Your task to perform on an android device: change timer sound Image 0: 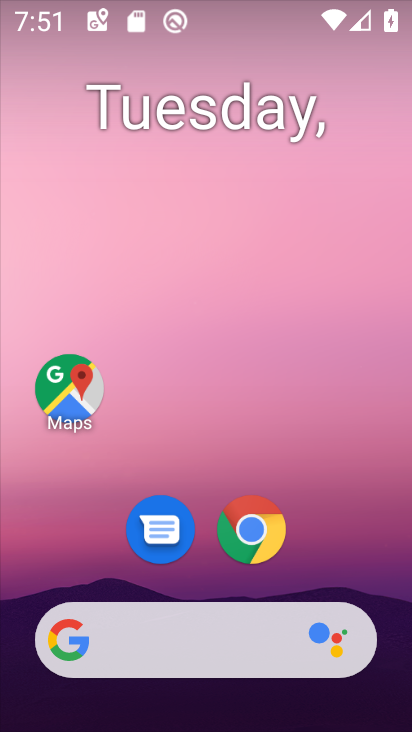
Step 0: drag from (107, 527) to (181, 101)
Your task to perform on an android device: change timer sound Image 1: 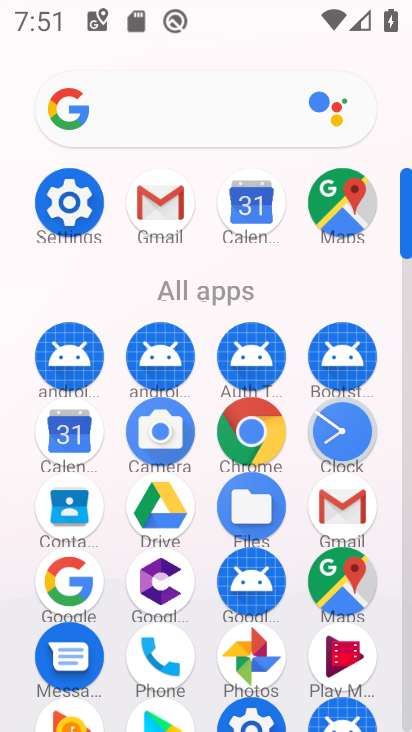
Step 1: click (333, 442)
Your task to perform on an android device: change timer sound Image 2: 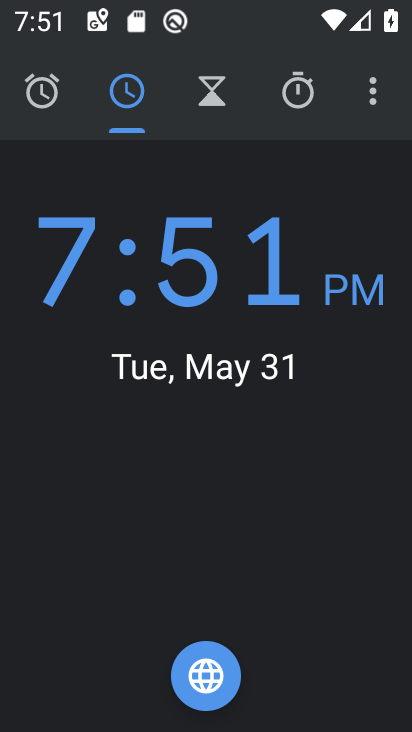
Step 2: click (374, 84)
Your task to perform on an android device: change timer sound Image 3: 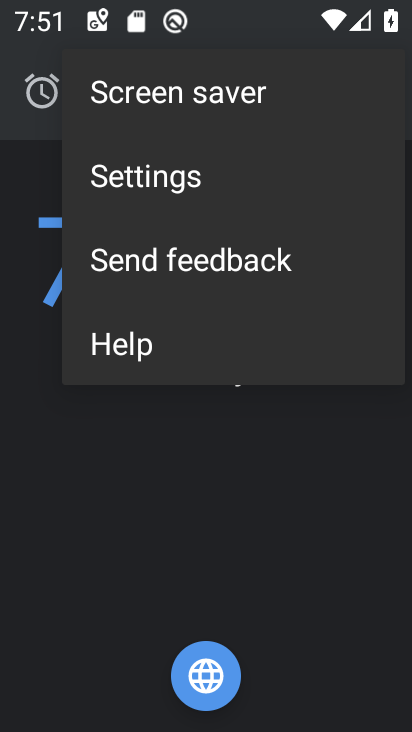
Step 3: click (181, 161)
Your task to perform on an android device: change timer sound Image 4: 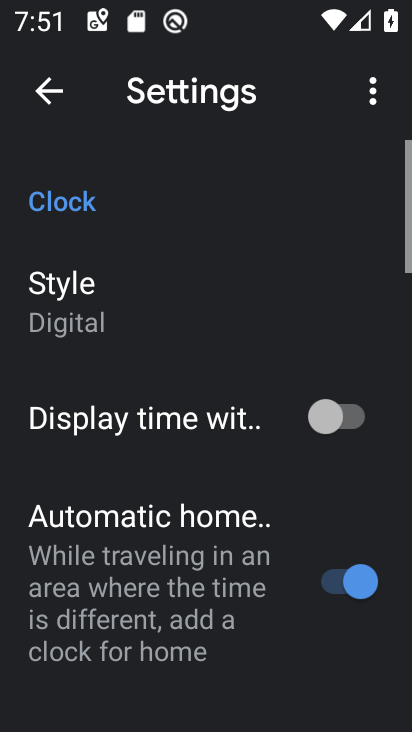
Step 4: drag from (162, 621) to (224, 25)
Your task to perform on an android device: change timer sound Image 5: 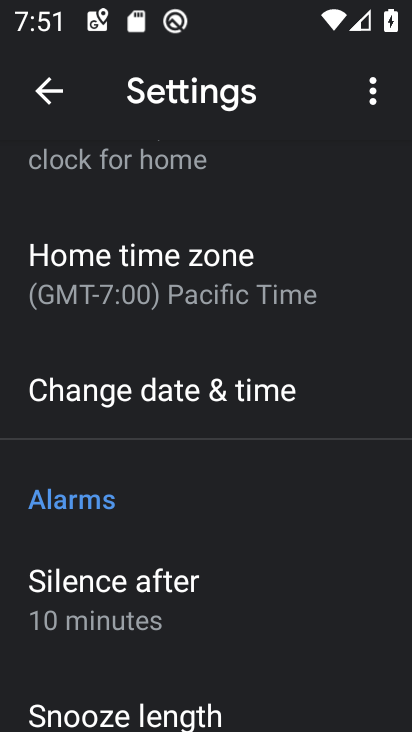
Step 5: drag from (200, 585) to (254, 76)
Your task to perform on an android device: change timer sound Image 6: 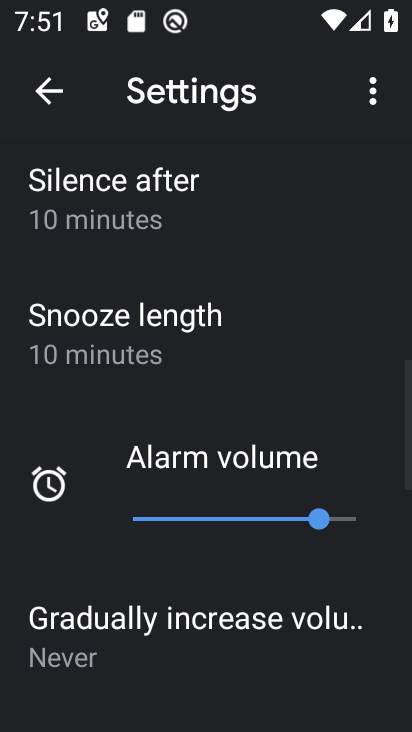
Step 6: drag from (224, 589) to (278, 48)
Your task to perform on an android device: change timer sound Image 7: 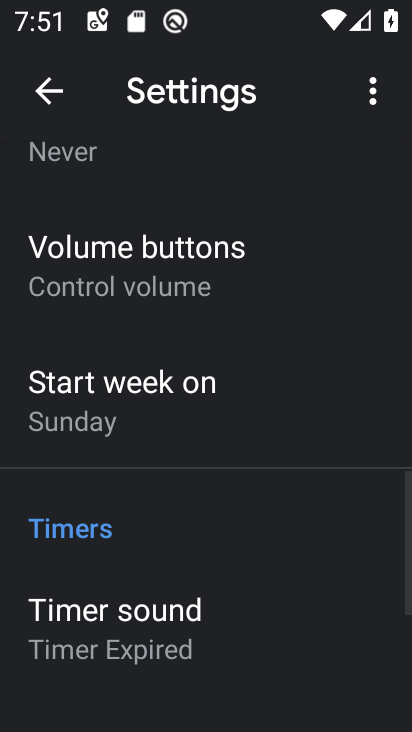
Step 7: click (140, 615)
Your task to perform on an android device: change timer sound Image 8: 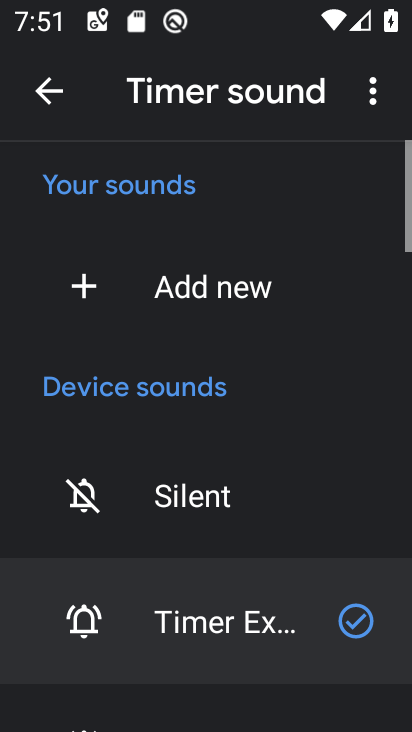
Step 8: drag from (165, 533) to (221, 117)
Your task to perform on an android device: change timer sound Image 9: 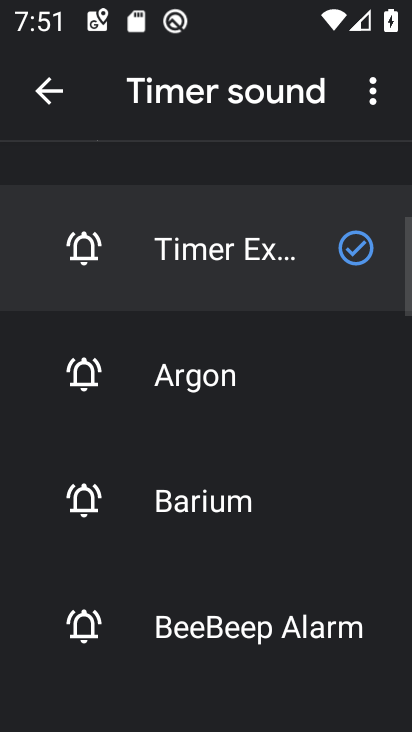
Step 9: click (195, 510)
Your task to perform on an android device: change timer sound Image 10: 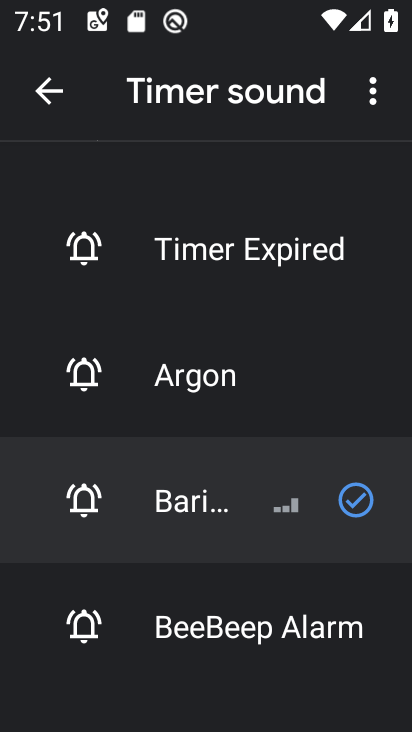
Step 10: task complete